Your task to perform on an android device: add a label to a message in the gmail app Image 0: 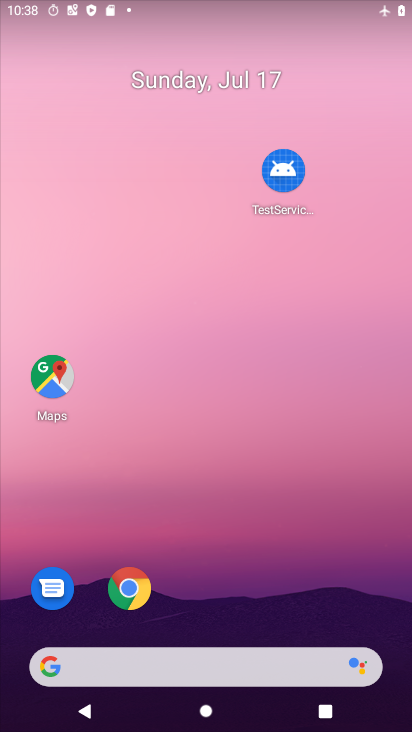
Step 0: drag from (239, 662) to (266, 183)
Your task to perform on an android device: add a label to a message in the gmail app Image 1: 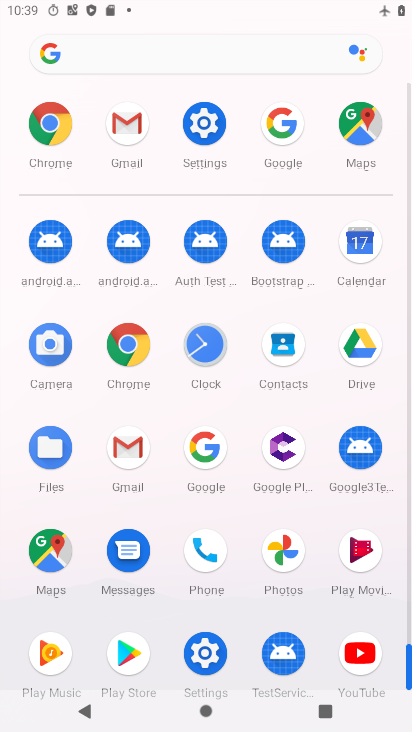
Step 1: click (135, 463)
Your task to perform on an android device: add a label to a message in the gmail app Image 2: 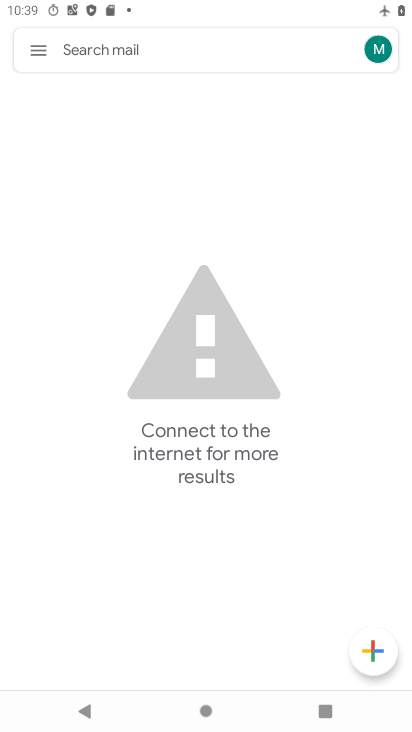
Step 2: click (32, 53)
Your task to perform on an android device: add a label to a message in the gmail app Image 3: 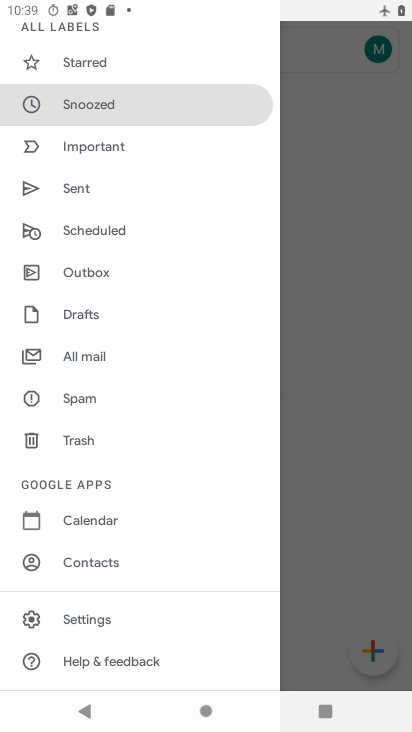
Step 3: click (108, 362)
Your task to perform on an android device: add a label to a message in the gmail app Image 4: 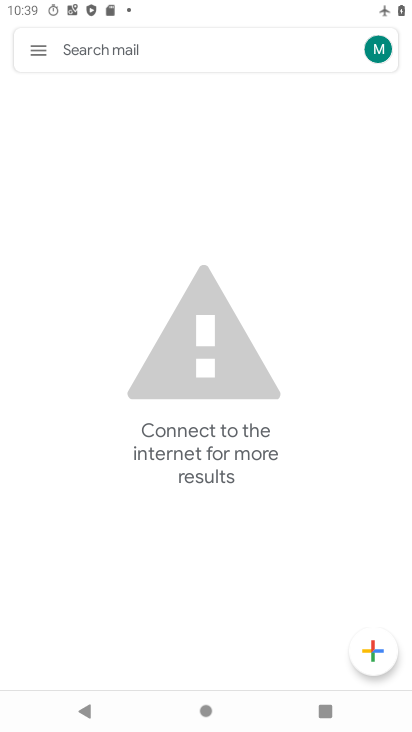
Step 4: task complete